Your task to perform on an android device: turn off picture-in-picture Image 0: 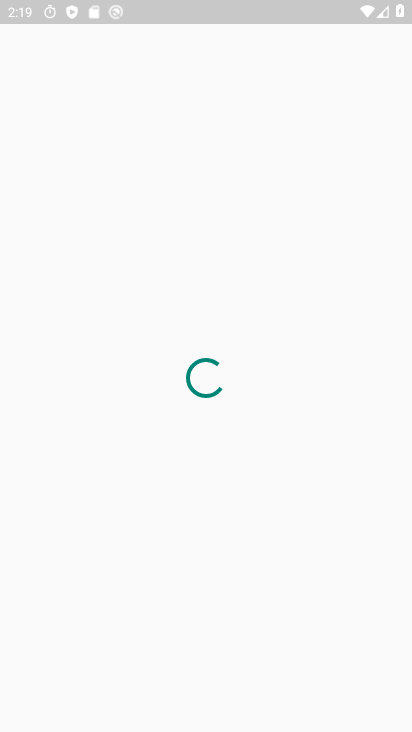
Step 0: drag from (353, 522) to (327, 286)
Your task to perform on an android device: turn off picture-in-picture Image 1: 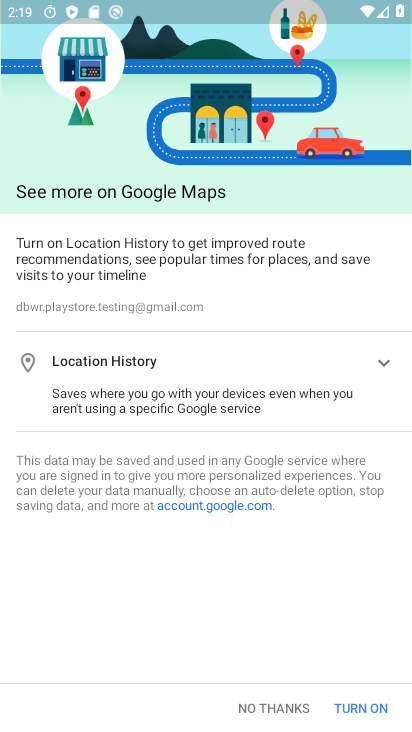
Step 1: press home button
Your task to perform on an android device: turn off picture-in-picture Image 2: 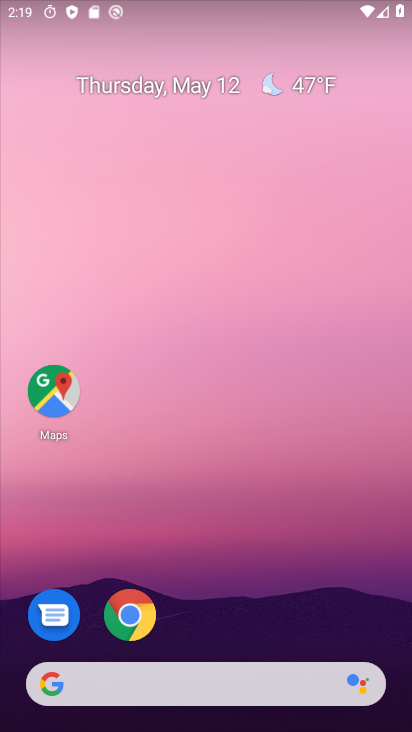
Step 2: click (121, 616)
Your task to perform on an android device: turn off picture-in-picture Image 3: 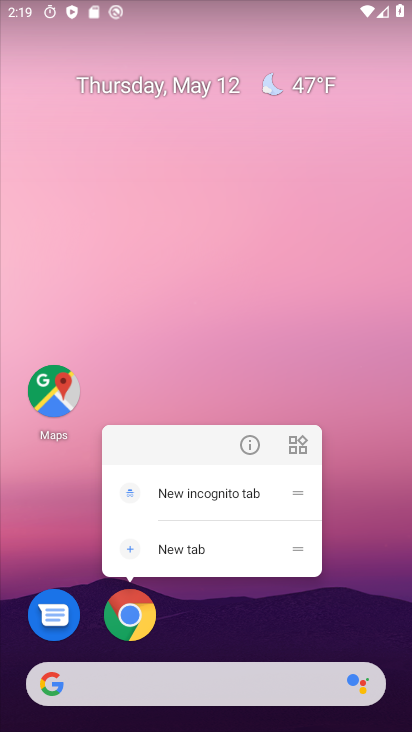
Step 3: click (249, 452)
Your task to perform on an android device: turn off picture-in-picture Image 4: 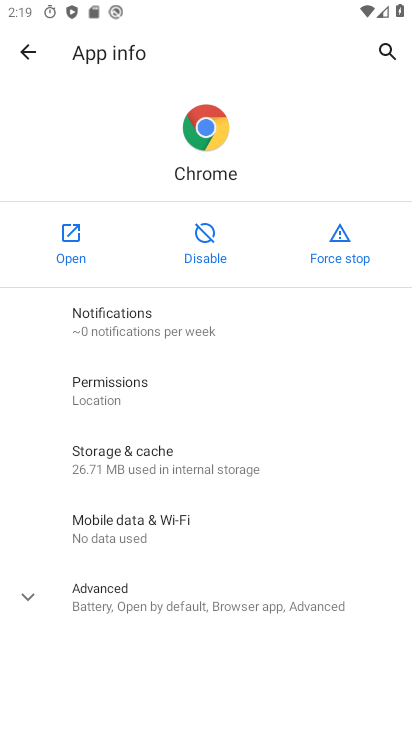
Step 4: click (179, 592)
Your task to perform on an android device: turn off picture-in-picture Image 5: 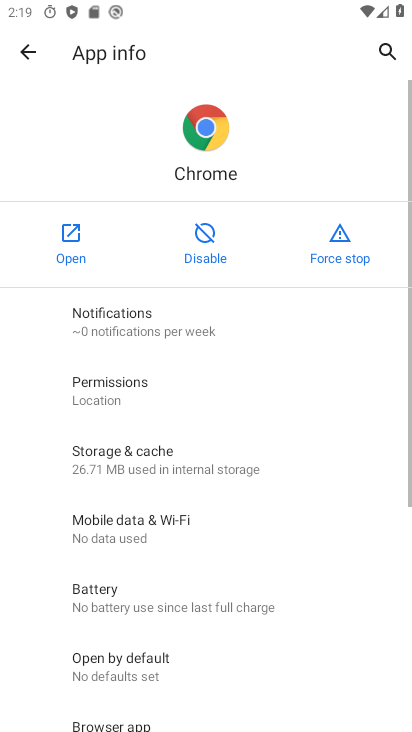
Step 5: drag from (338, 554) to (284, 194)
Your task to perform on an android device: turn off picture-in-picture Image 6: 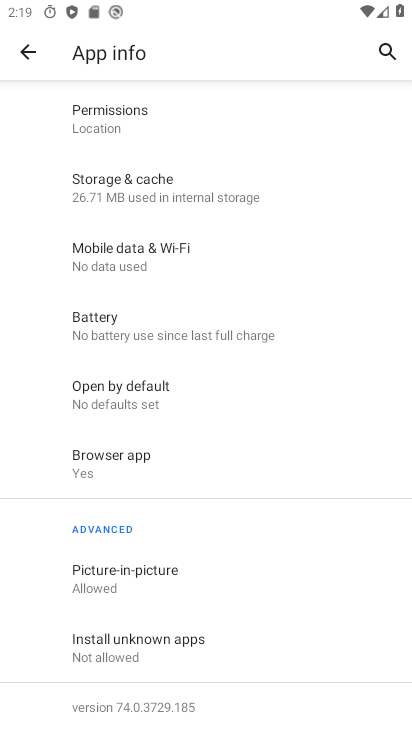
Step 6: click (164, 568)
Your task to perform on an android device: turn off picture-in-picture Image 7: 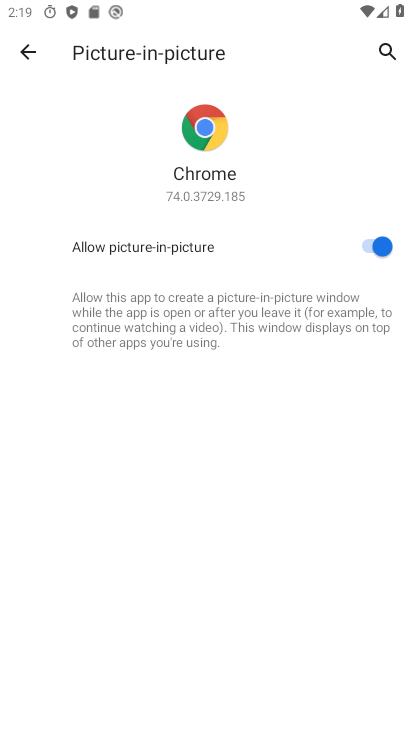
Step 7: click (376, 244)
Your task to perform on an android device: turn off picture-in-picture Image 8: 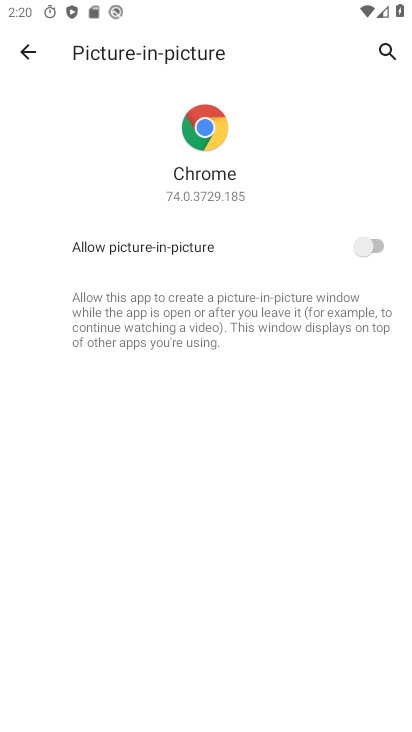
Step 8: task complete